Your task to perform on an android device: choose inbox layout in the gmail app Image 0: 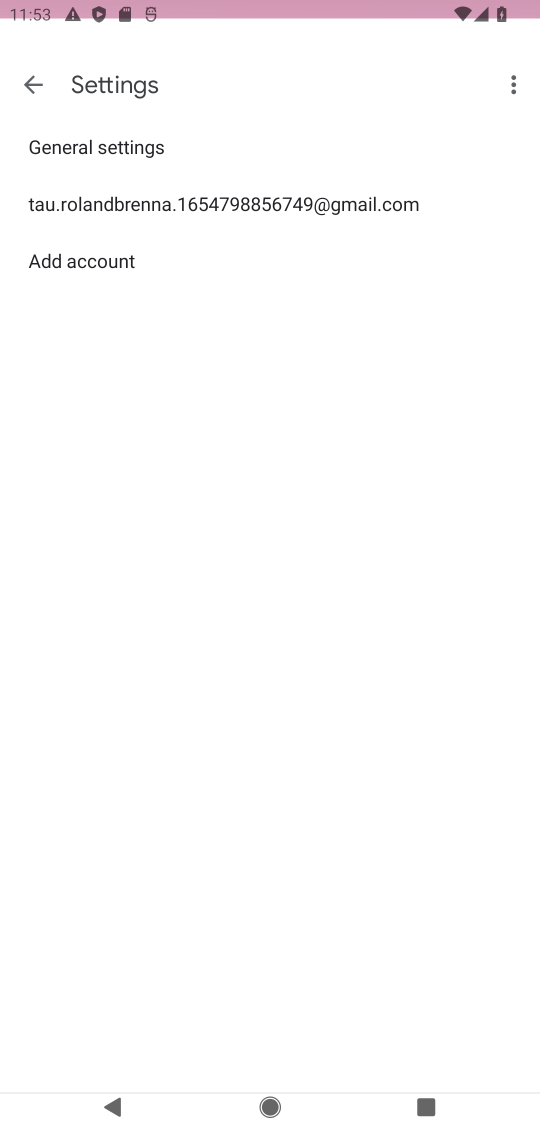
Step 0: click (352, 347)
Your task to perform on an android device: choose inbox layout in the gmail app Image 1: 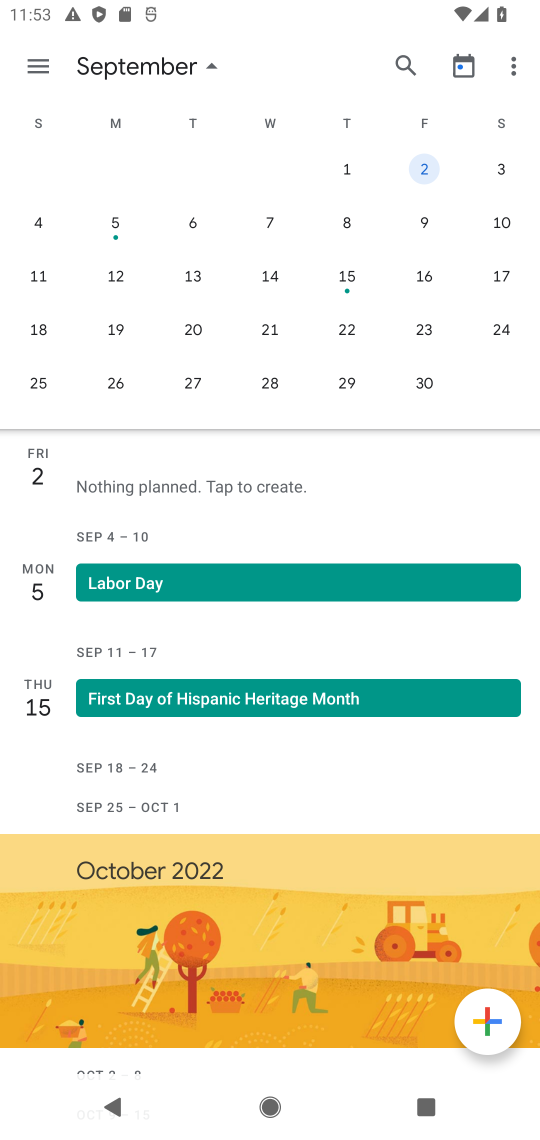
Step 1: press home button
Your task to perform on an android device: choose inbox layout in the gmail app Image 2: 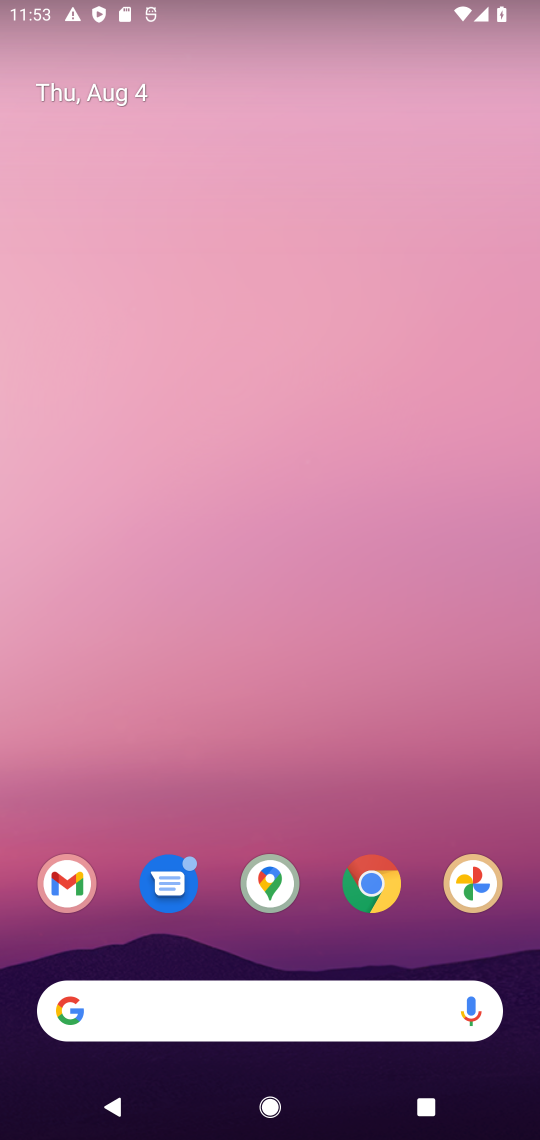
Step 2: drag from (304, 934) to (390, 180)
Your task to perform on an android device: choose inbox layout in the gmail app Image 3: 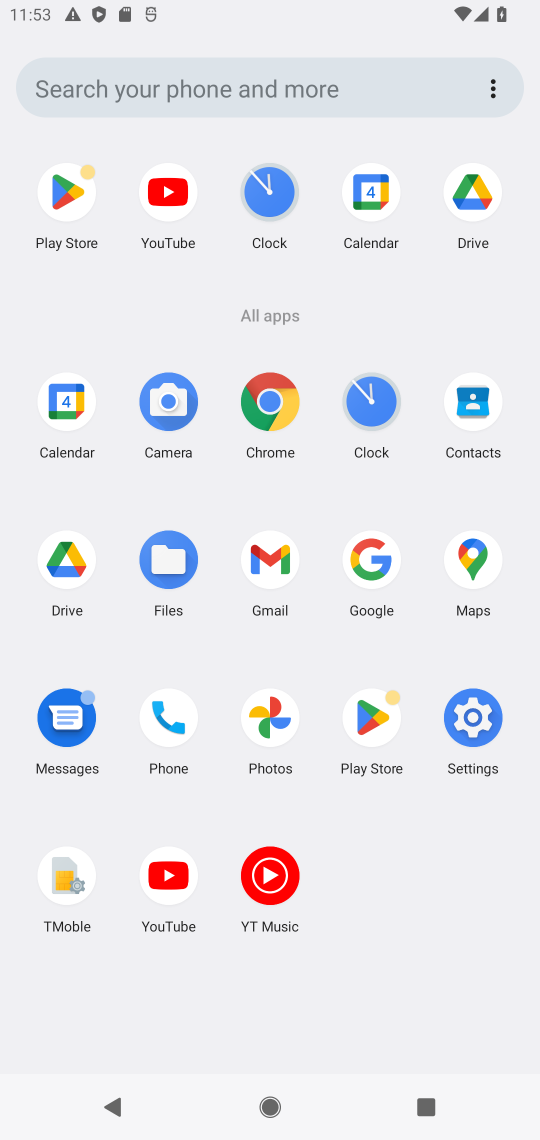
Step 3: click (265, 562)
Your task to perform on an android device: choose inbox layout in the gmail app Image 4: 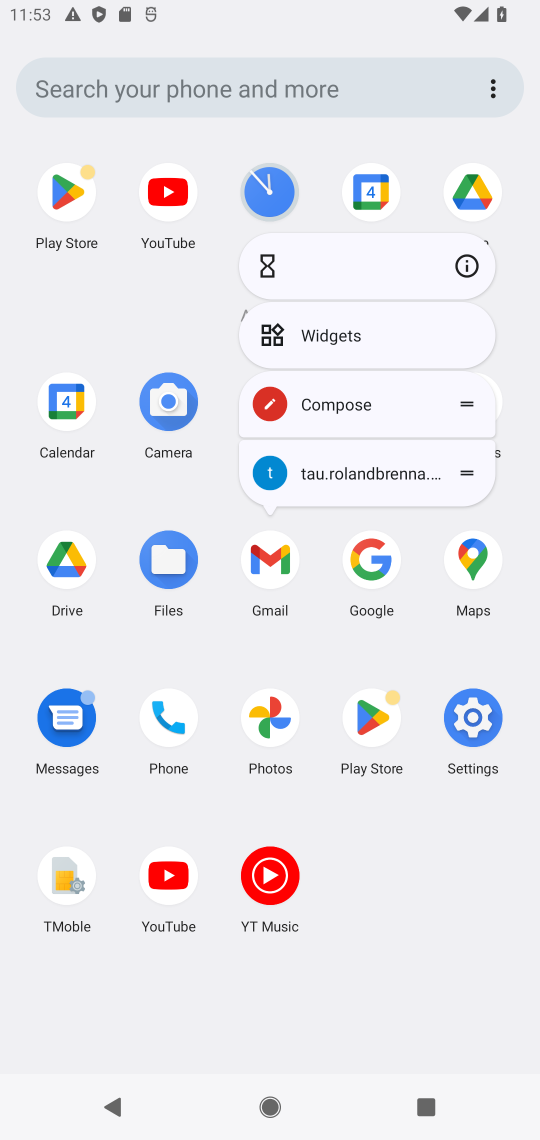
Step 4: click (460, 257)
Your task to perform on an android device: choose inbox layout in the gmail app Image 5: 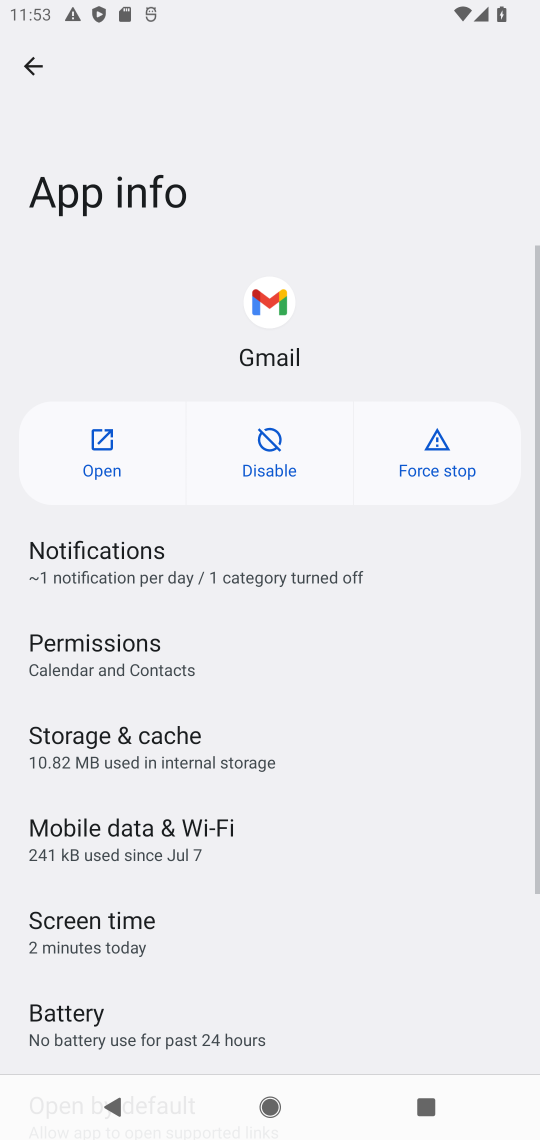
Step 5: click (89, 458)
Your task to perform on an android device: choose inbox layout in the gmail app Image 6: 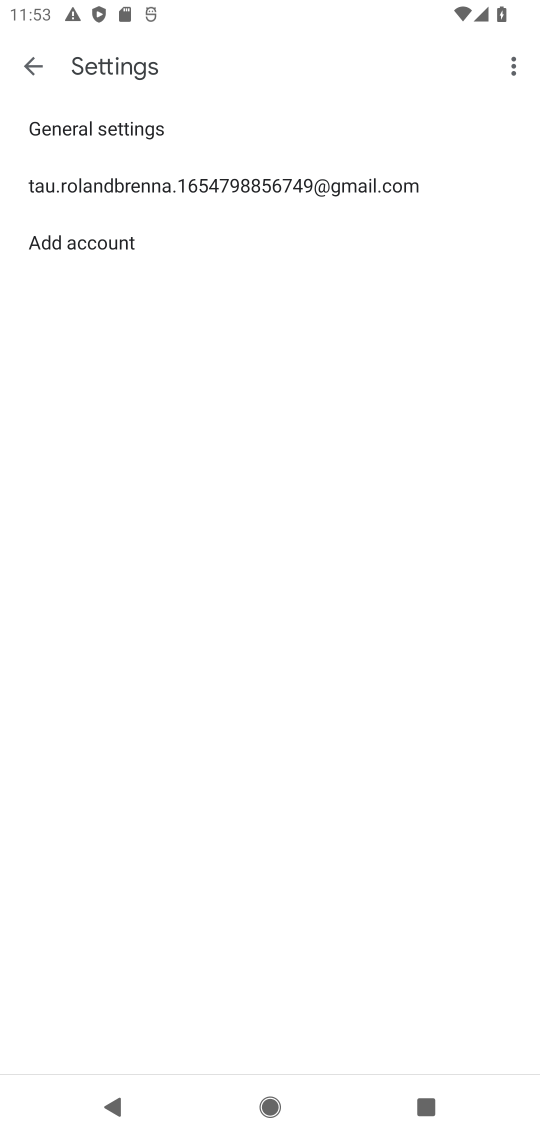
Step 6: click (45, 62)
Your task to perform on an android device: choose inbox layout in the gmail app Image 7: 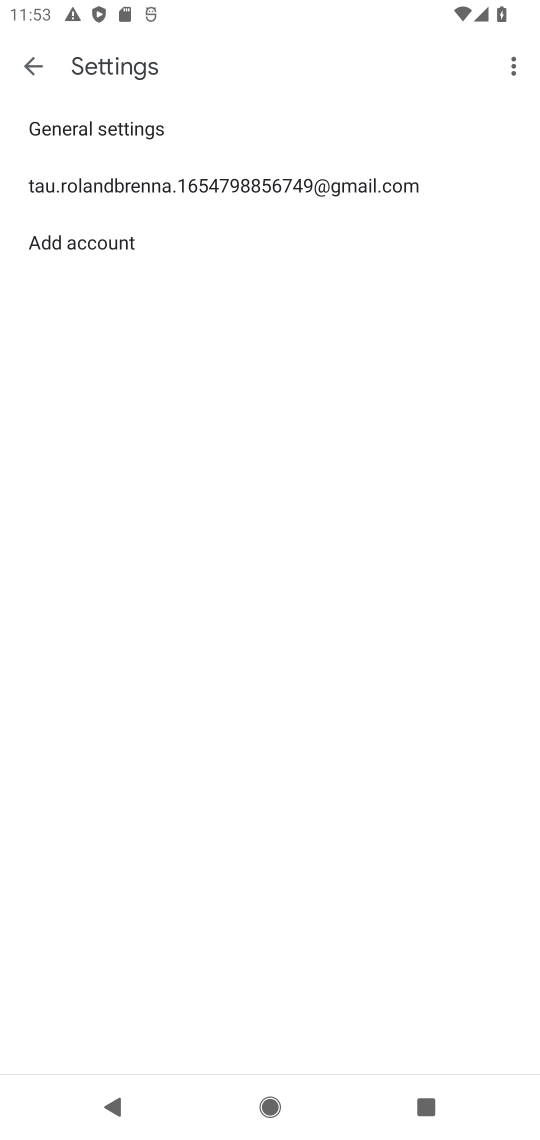
Step 7: click (47, 75)
Your task to perform on an android device: choose inbox layout in the gmail app Image 8: 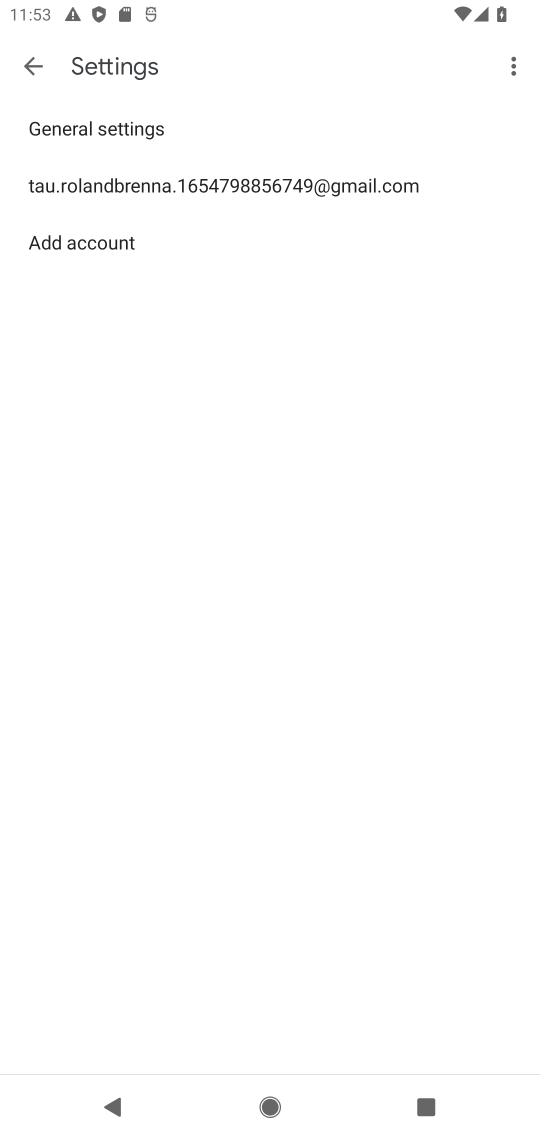
Step 8: click (29, 46)
Your task to perform on an android device: choose inbox layout in the gmail app Image 9: 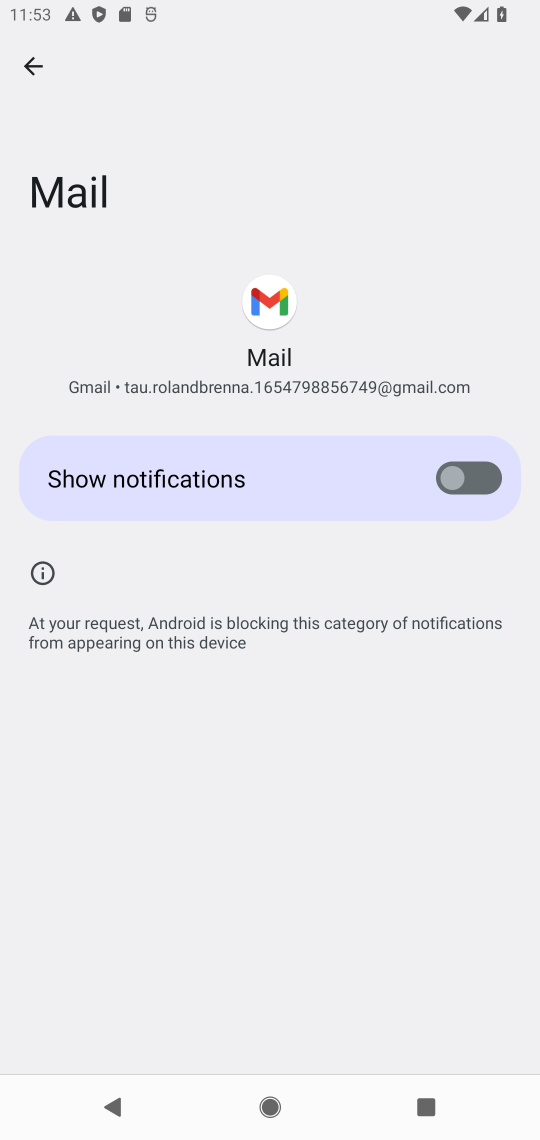
Step 9: click (35, 51)
Your task to perform on an android device: choose inbox layout in the gmail app Image 10: 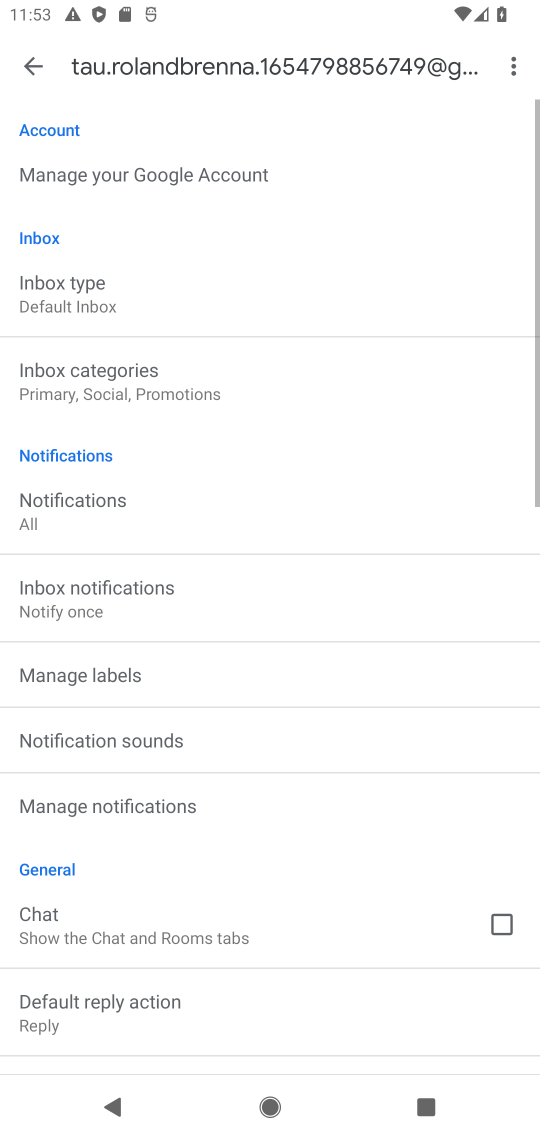
Step 10: click (43, 54)
Your task to perform on an android device: choose inbox layout in the gmail app Image 11: 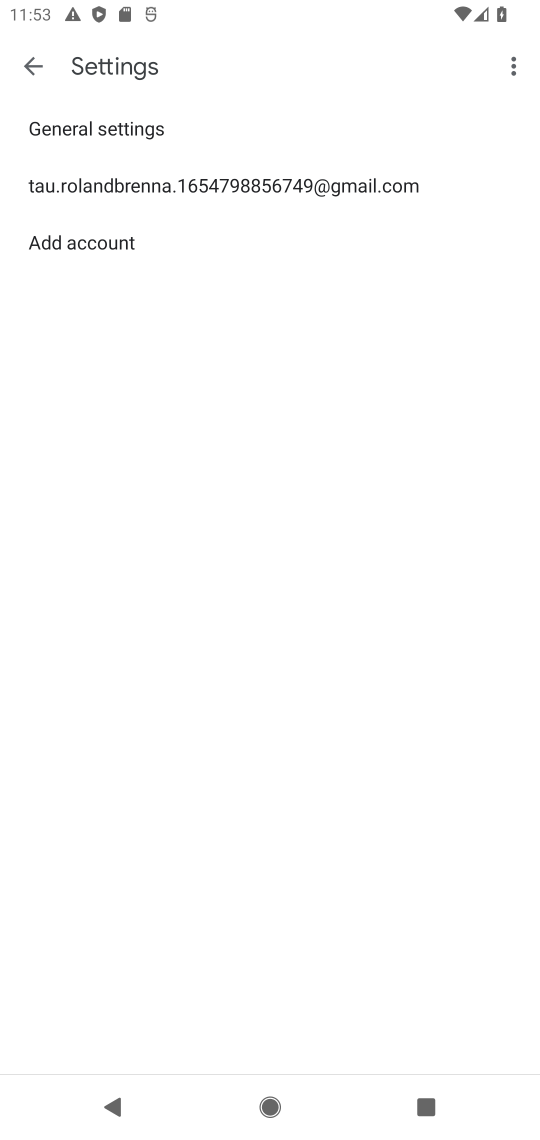
Step 11: click (43, 64)
Your task to perform on an android device: choose inbox layout in the gmail app Image 12: 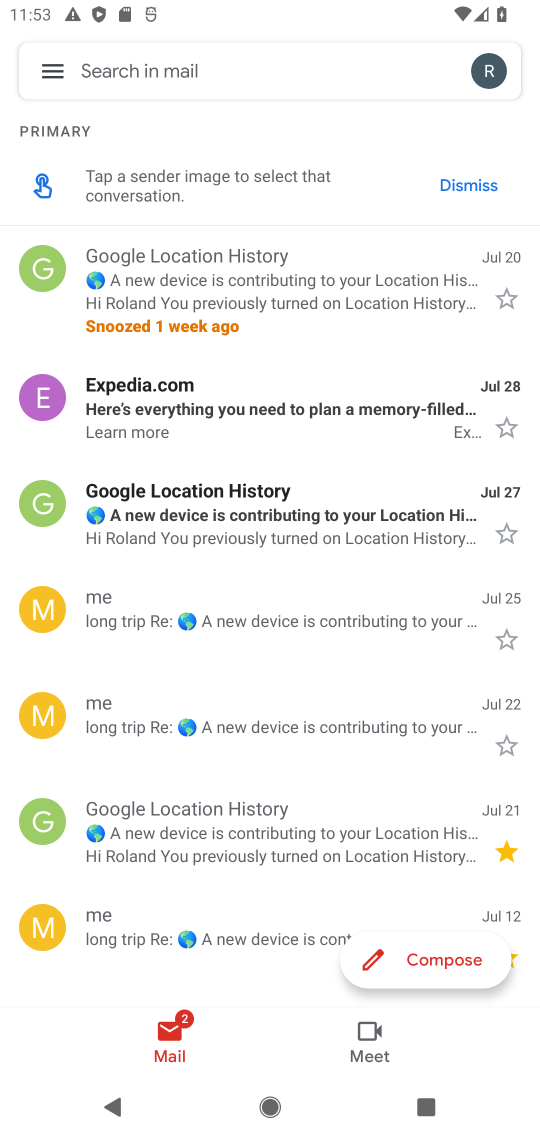
Step 12: click (52, 74)
Your task to perform on an android device: choose inbox layout in the gmail app Image 13: 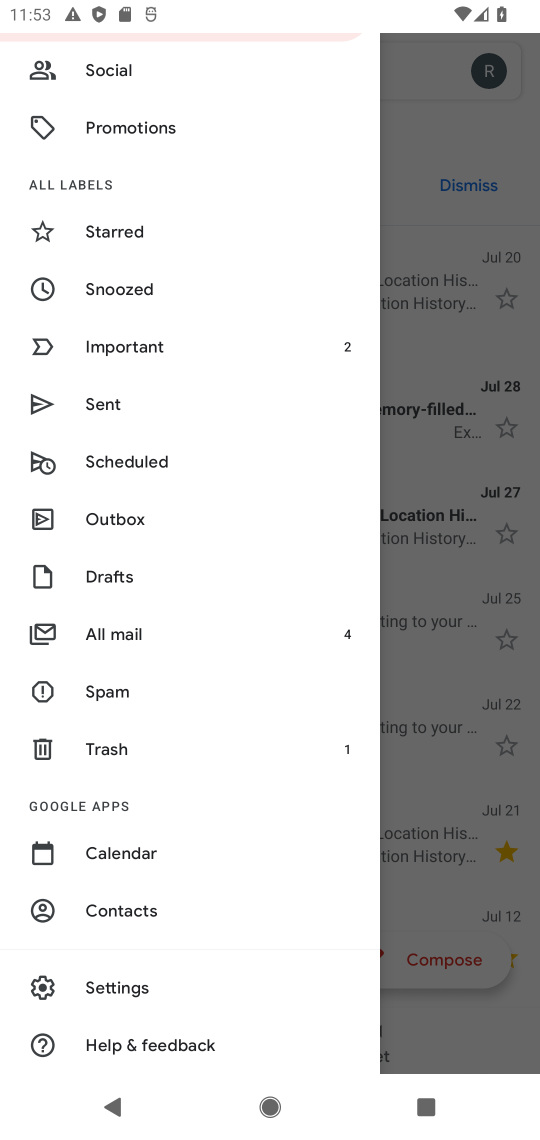
Step 13: drag from (164, 109) to (248, 770)
Your task to perform on an android device: choose inbox layout in the gmail app Image 14: 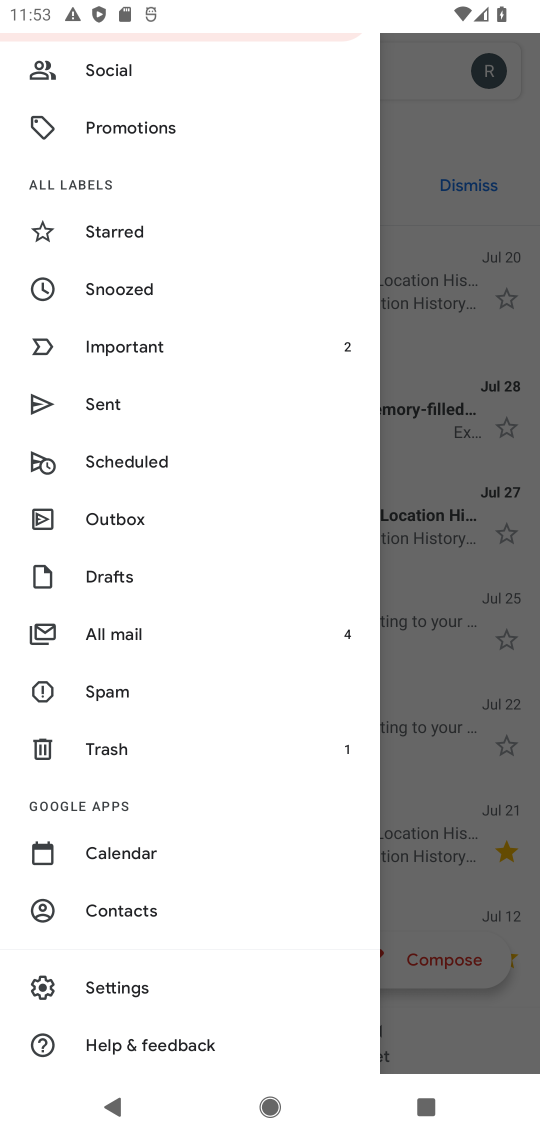
Step 14: drag from (203, 289) to (237, 1072)
Your task to perform on an android device: choose inbox layout in the gmail app Image 15: 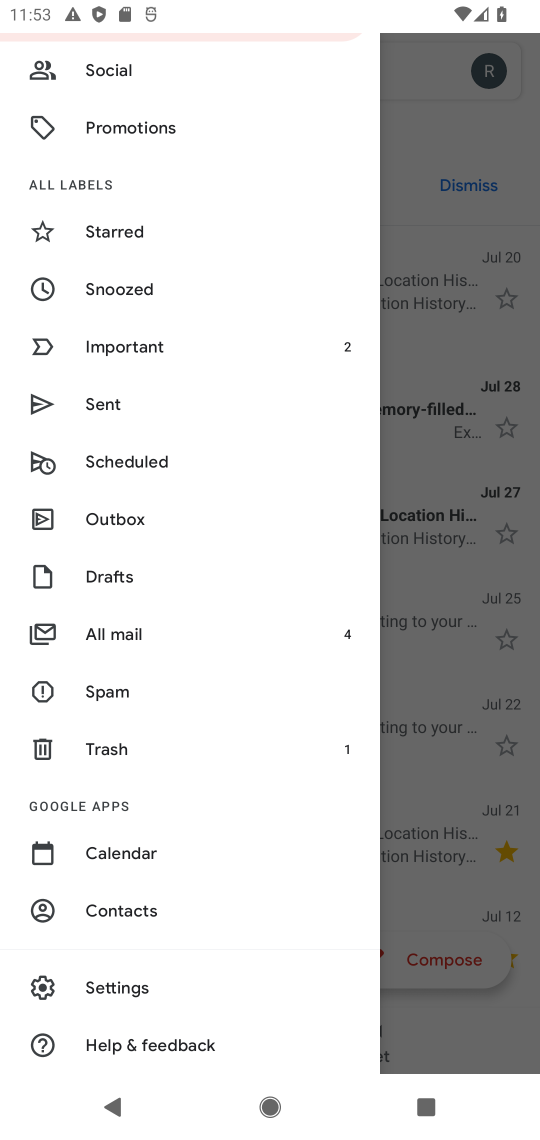
Step 15: drag from (148, 222) to (226, 682)
Your task to perform on an android device: choose inbox layout in the gmail app Image 16: 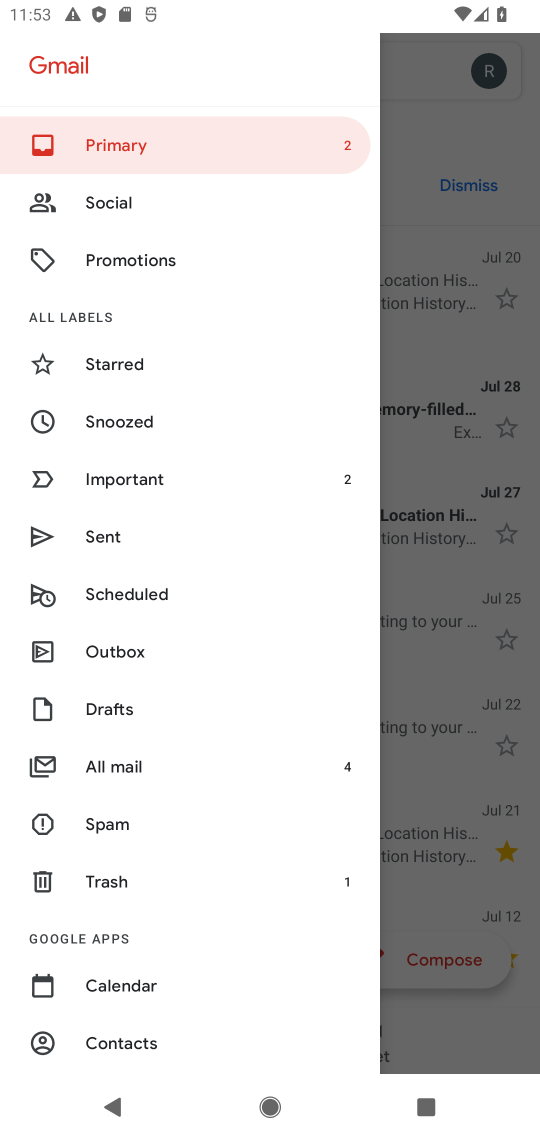
Step 16: click (125, 163)
Your task to perform on an android device: choose inbox layout in the gmail app Image 17: 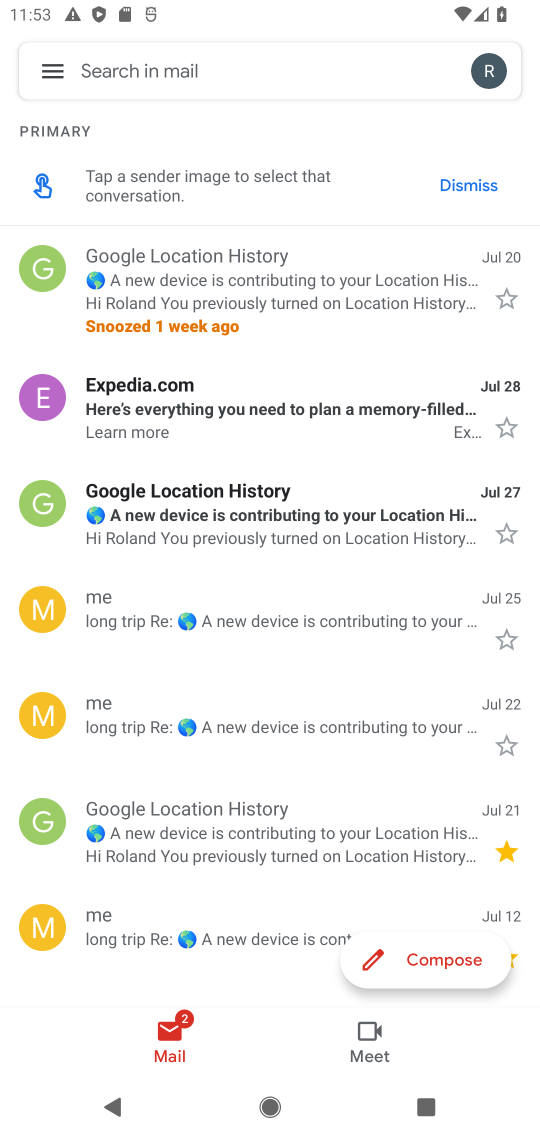
Step 17: task complete